Your task to perform on an android device: Show the shopping cart on newegg.com. Search for dell xps on newegg.com, select the first entry, and add it to the cart. Image 0: 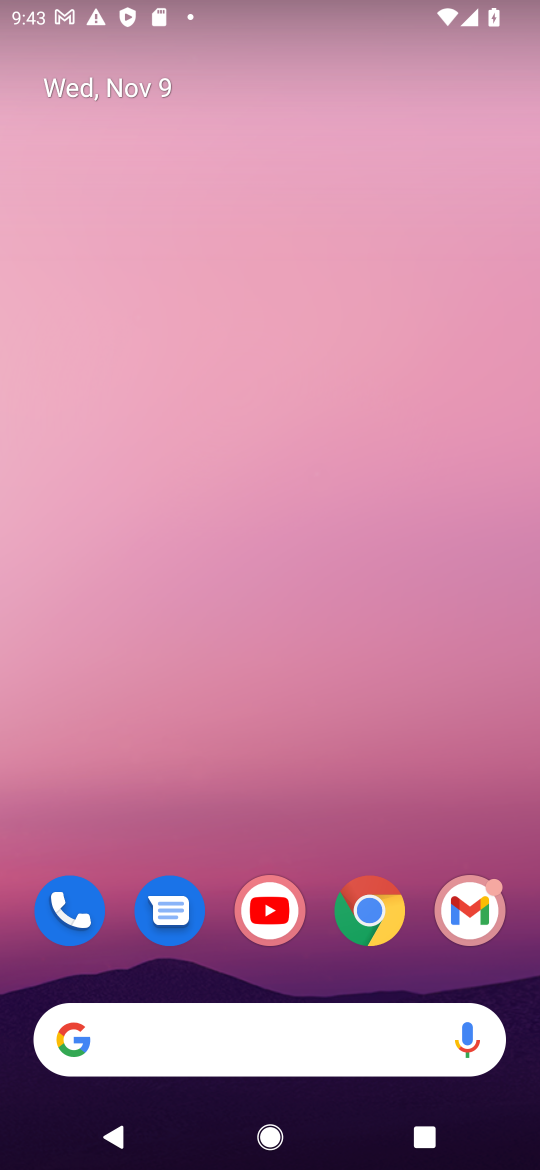
Step 0: click (372, 922)
Your task to perform on an android device: Show the shopping cart on newegg.com. Search for dell xps on newegg.com, select the first entry, and add it to the cart. Image 1: 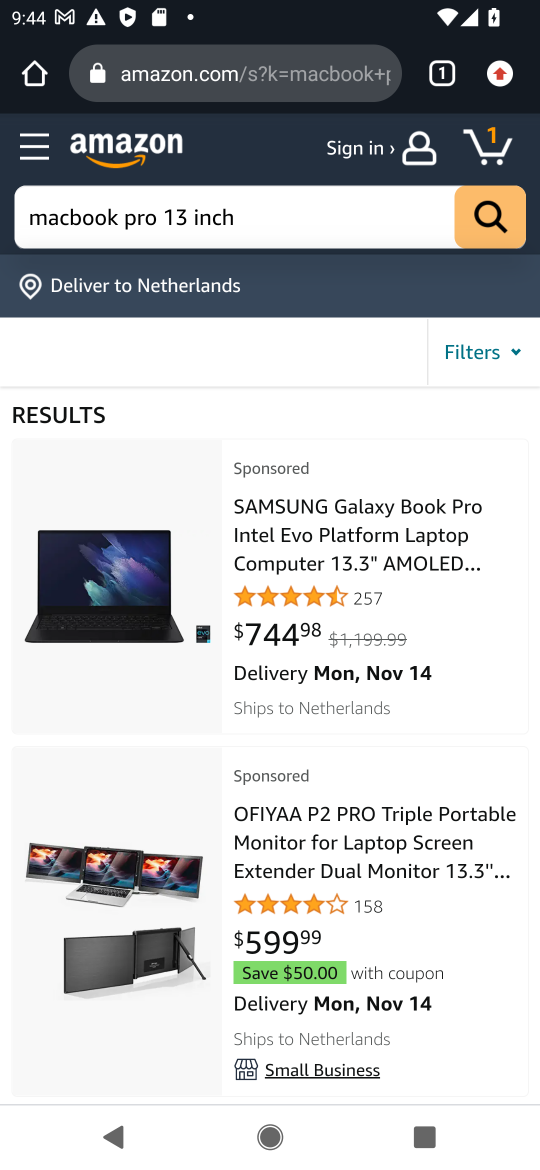
Step 1: click (202, 76)
Your task to perform on an android device: Show the shopping cart on newegg.com. Search for dell xps on newegg.com, select the first entry, and add it to the cart. Image 2: 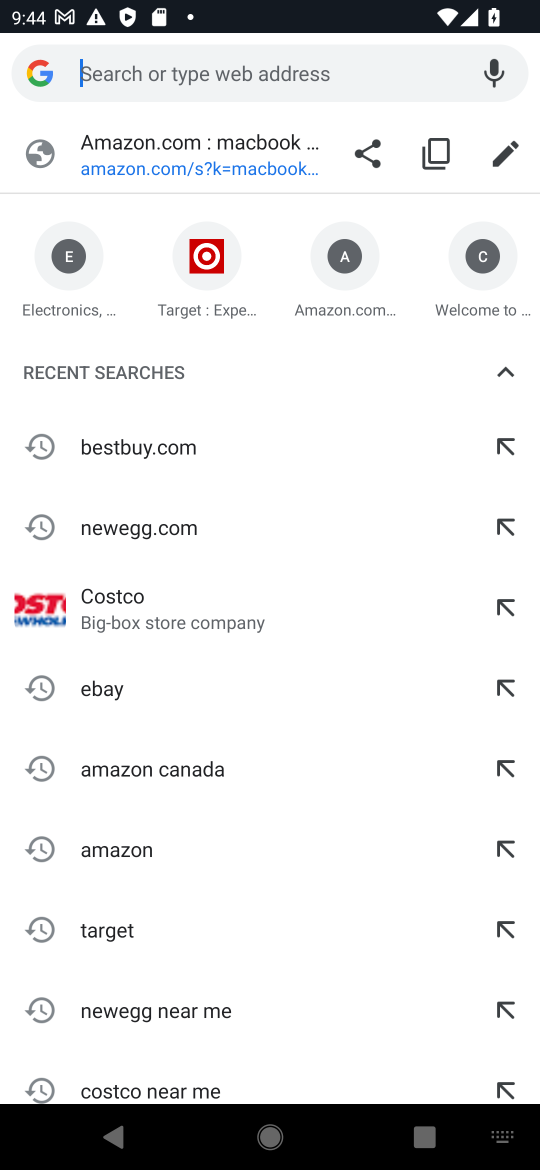
Step 2: click (138, 532)
Your task to perform on an android device: Show the shopping cart on newegg.com. Search for dell xps on newegg.com, select the first entry, and add it to the cart. Image 3: 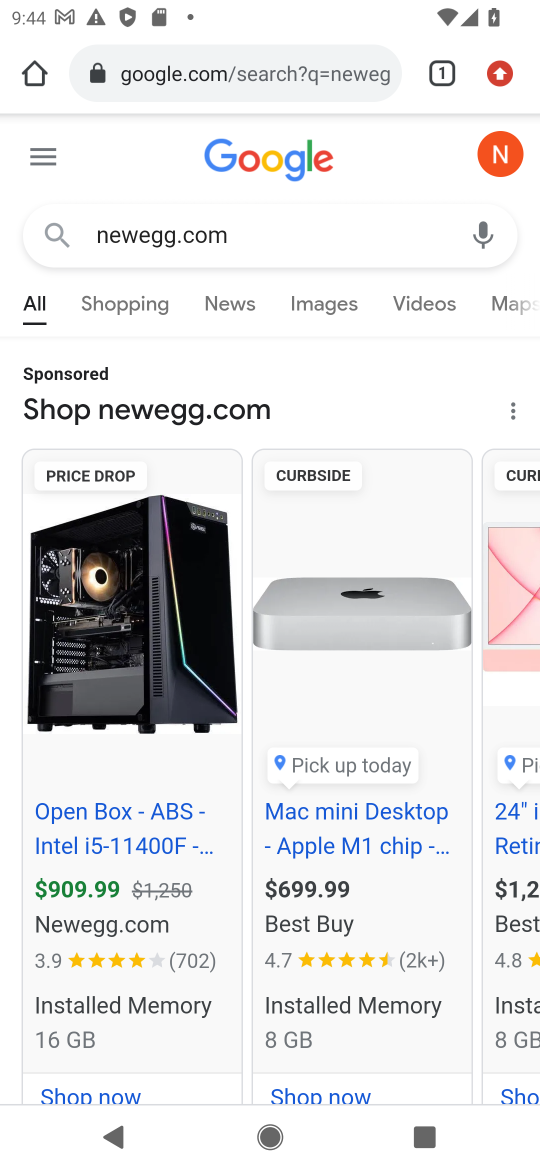
Step 3: drag from (228, 931) to (204, 375)
Your task to perform on an android device: Show the shopping cart on newegg.com. Search for dell xps on newegg.com, select the first entry, and add it to the cart. Image 4: 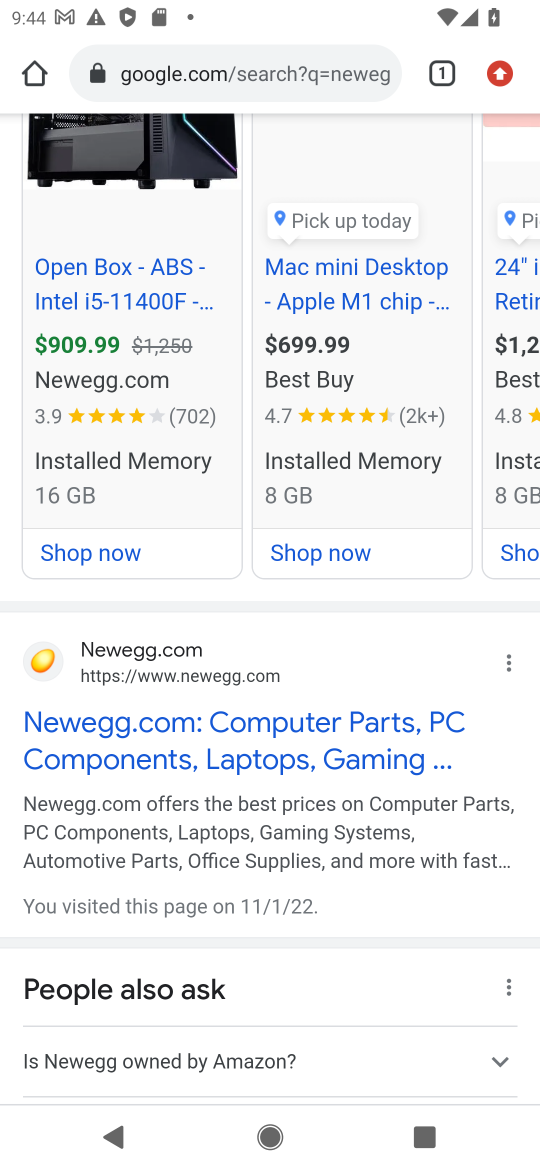
Step 4: drag from (186, 778) to (199, 539)
Your task to perform on an android device: Show the shopping cart on newegg.com. Search for dell xps on newegg.com, select the first entry, and add it to the cart. Image 5: 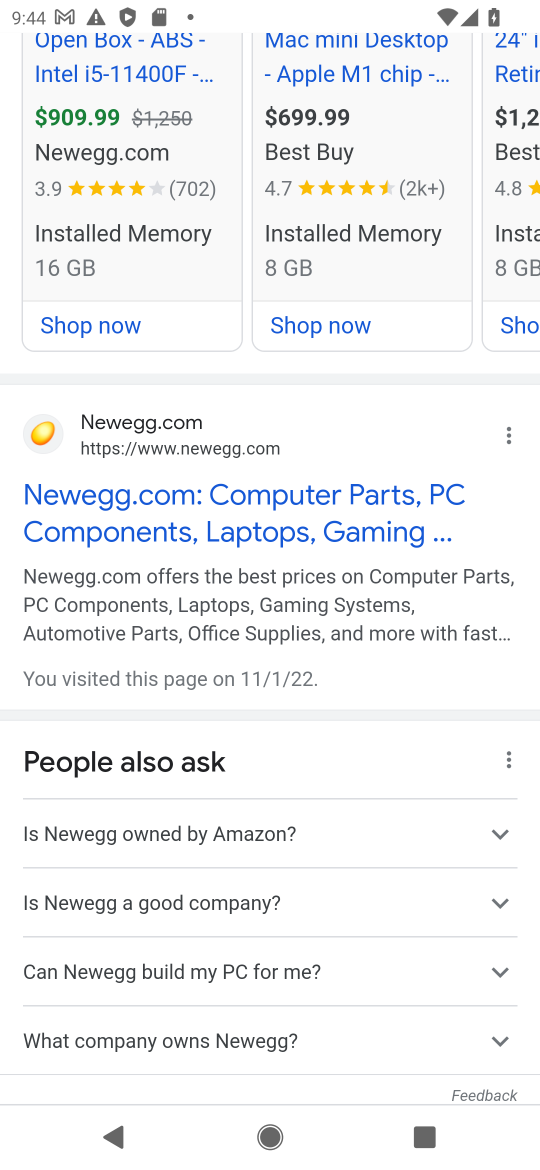
Step 5: drag from (176, 602) to (169, 127)
Your task to perform on an android device: Show the shopping cart on newegg.com. Search for dell xps on newegg.com, select the first entry, and add it to the cart. Image 6: 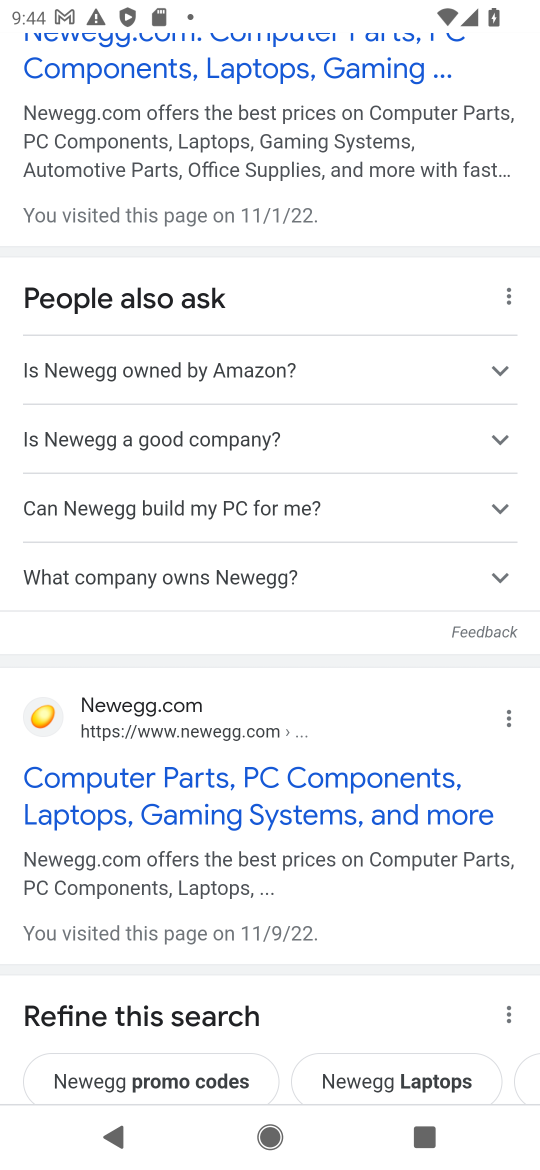
Step 6: click (154, 791)
Your task to perform on an android device: Show the shopping cart on newegg.com. Search for dell xps on newegg.com, select the first entry, and add it to the cart. Image 7: 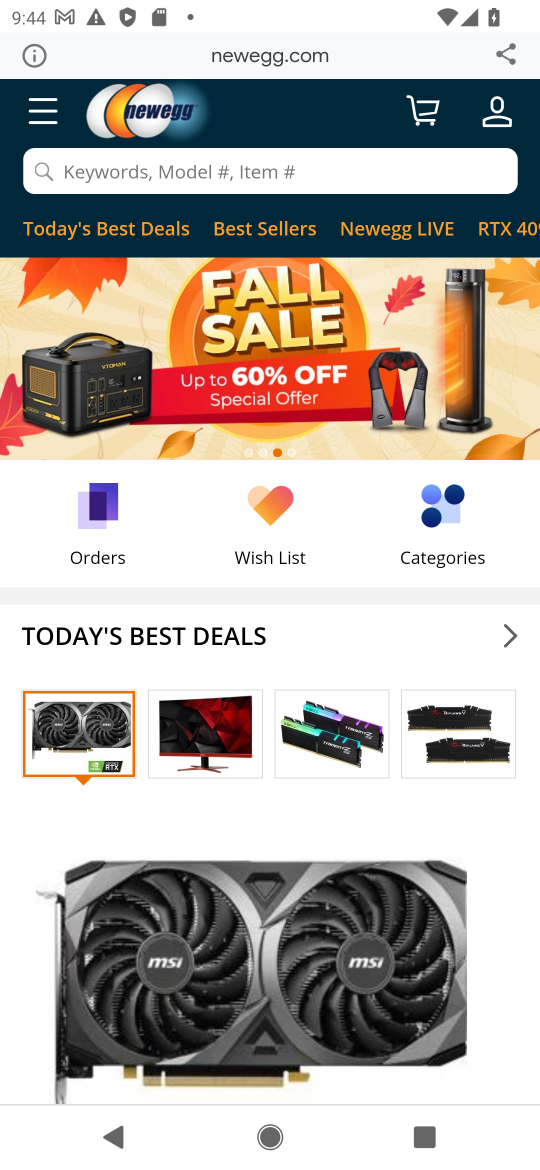
Step 7: click (430, 121)
Your task to perform on an android device: Show the shopping cart on newegg.com. Search for dell xps on newegg.com, select the first entry, and add it to the cart. Image 8: 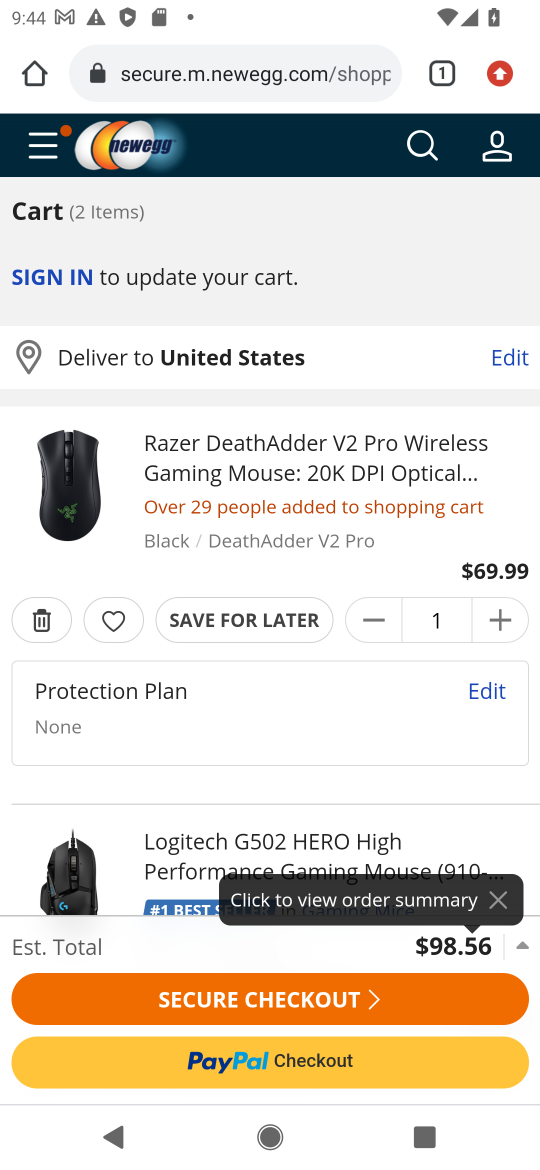
Step 8: click (415, 139)
Your task to perform on an android device: Show the shopping cart on newegg.com. Search for dell xps on newegg.com, select the first entry, and add it to the cart. Image 9: 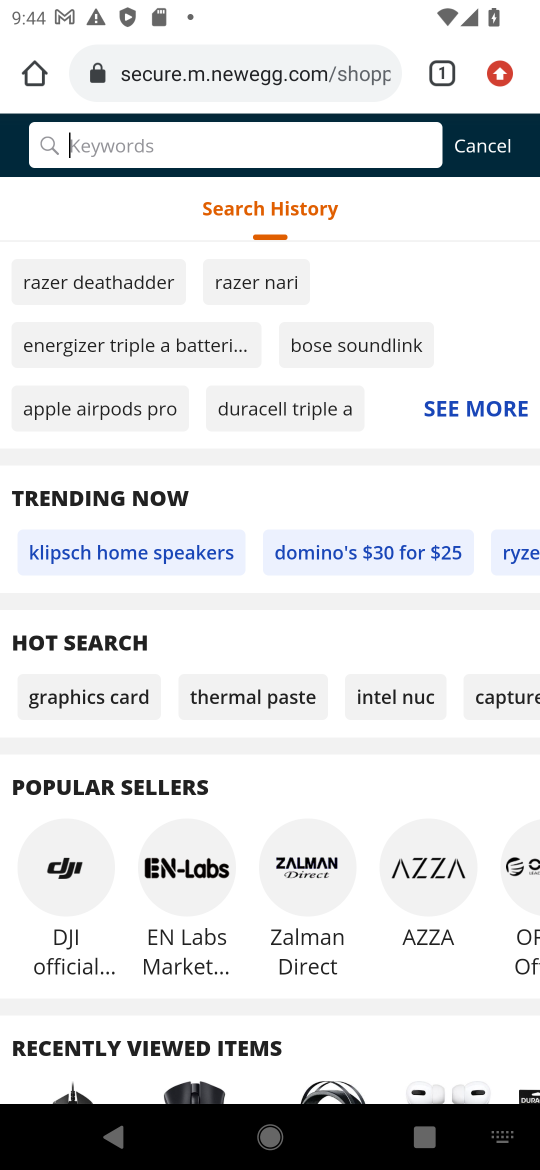
Step 9: type "dell xps"
Your task to perform on an android device: Show the shopping cart on newegg.com. Search for dell xps on newegg.com, select the first entry, and add it to the cart. Image 10: 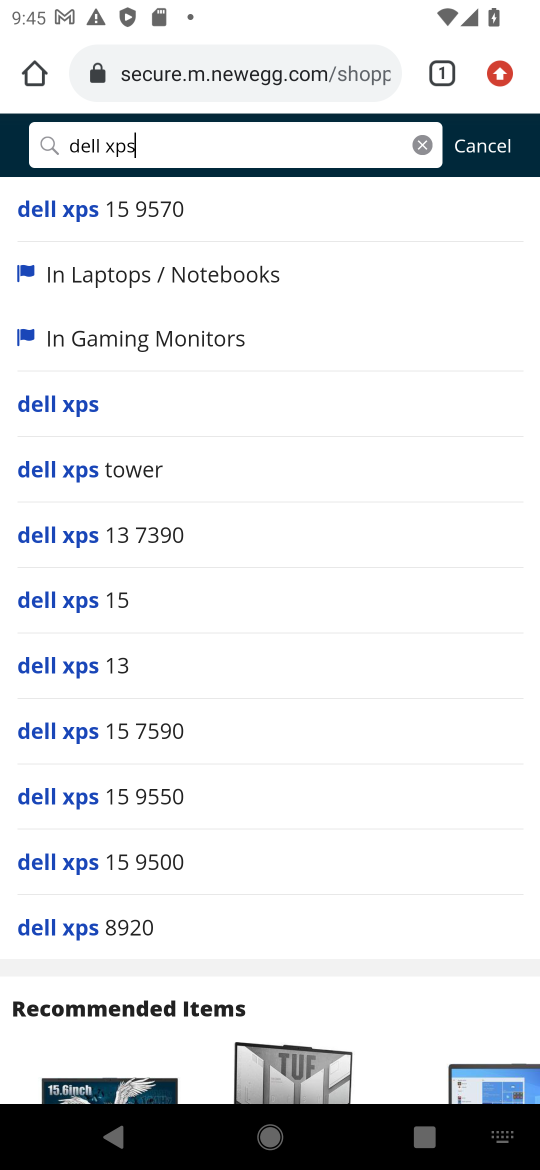
Step 10: click (63, 413)
Your task to perform on an android device: Show the shopping cart on newegg.com. Search for dell xps on newegg.com, select the first entry, and add it to the cart. Image 11: 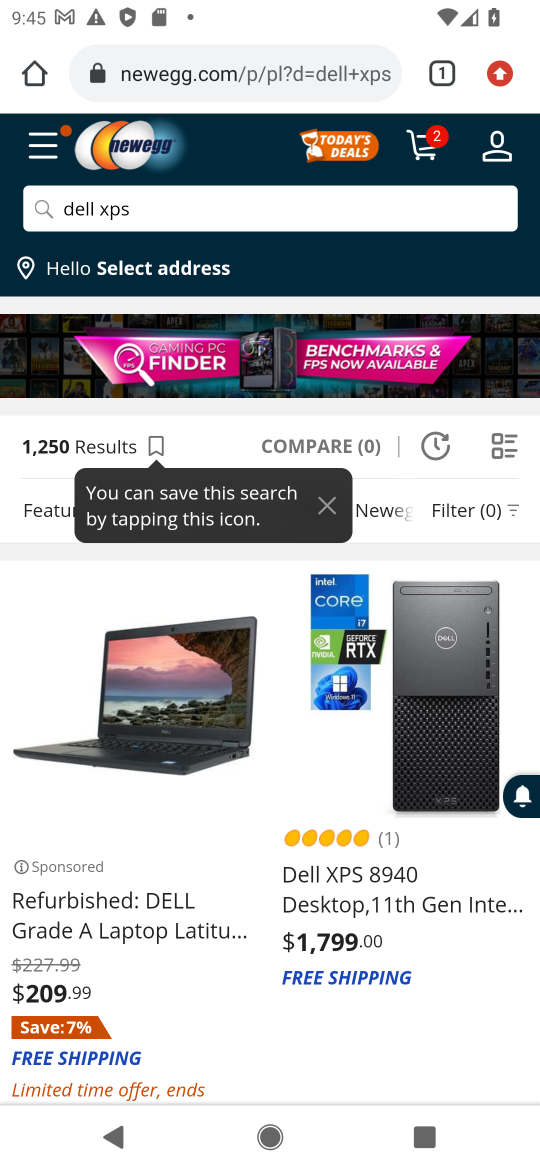
Step 11: task complete